Your task to perform on an android device: Go to accessibility settings Image 0: 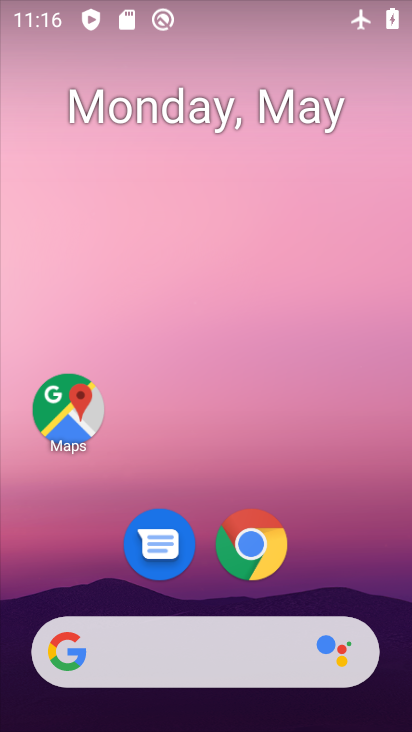
Step 0: press home button
Your task to perform on an android device: Go to accessibility settings Image 1: 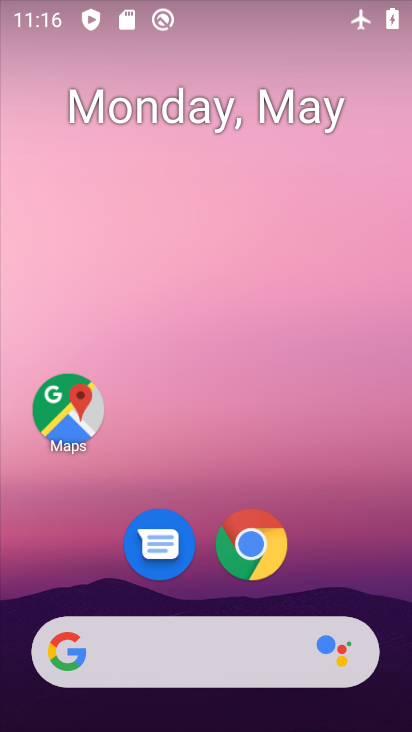
Step 1: drag from (342, 540) to (378, 3)
Your task to perform on an android device: Go to accessibility settings Image 2: 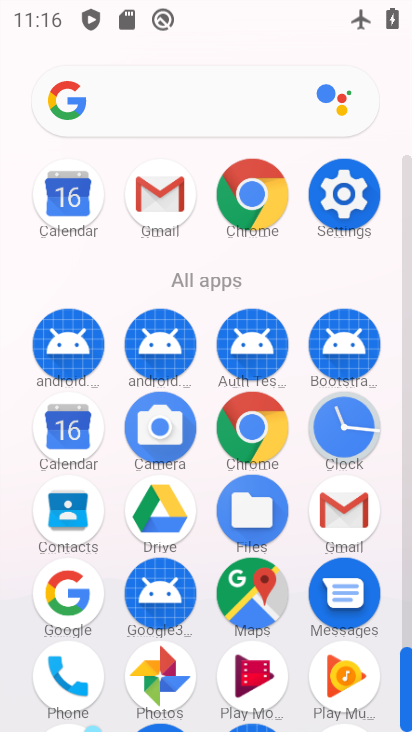
Step 2: click (332, 185)
Your task to perform on an android device: Go to accessibility settings Image 3: 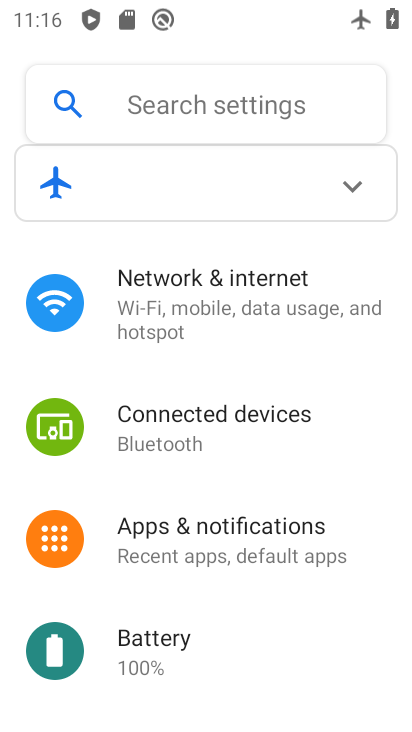
Step 3: drag from (216, 681) to (229, 290)
Your task to perform on an android device: Go to accessibility settings Image 4: 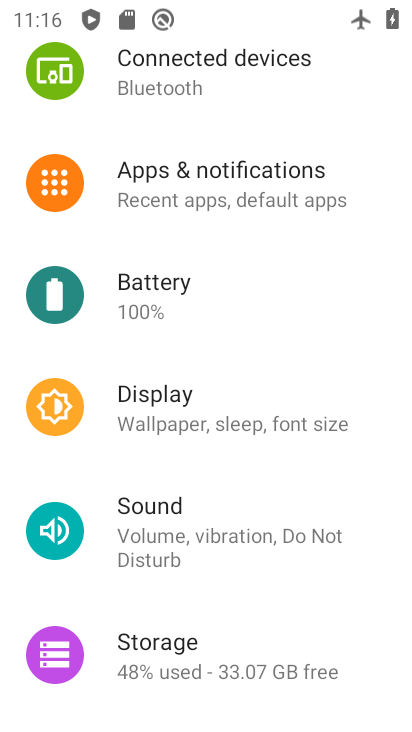
Step 4: drag from (234, 629) to (272, 180)
Your task to perform on an android device: Go to accessibility settings Image 5: 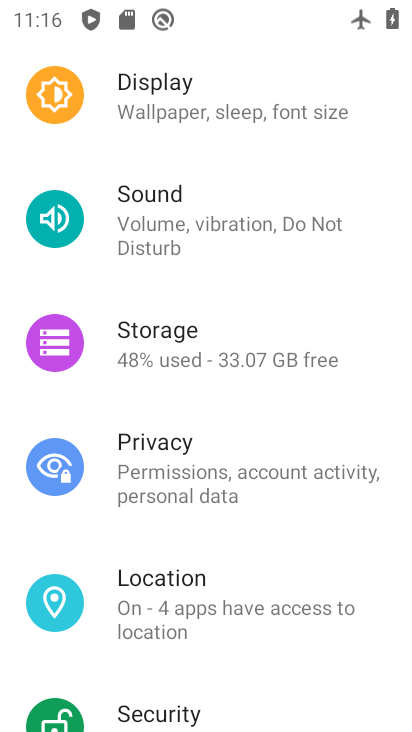
Step 5: drag from (268, 651) to (314, 223)
Your task to perform on an android device: Go to accessibility settings Image 6: 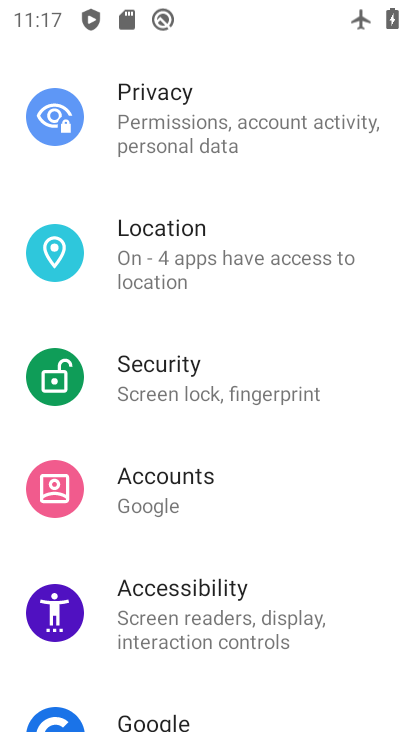
Step 6: click (235, 622)
Your task to perform on an android device: Go to accessibility settings Image 7: 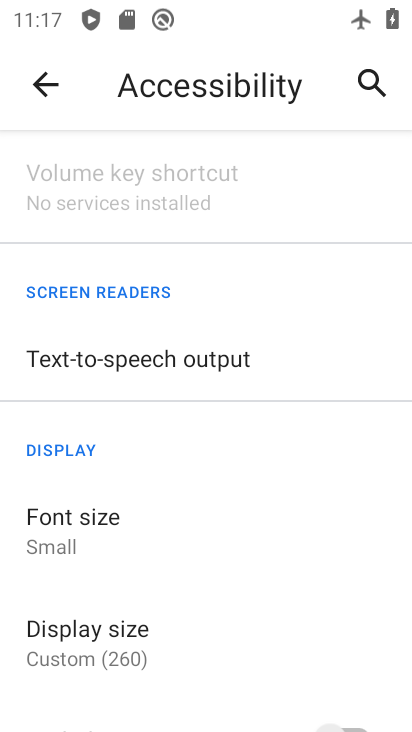
Step 7: task complete